Your task to perform on an android device: open app "Viber Messenger" (install if not already installed) and enter user name: "blameless@icloud.com" and password: "Yoknapatawpha" Image 0: 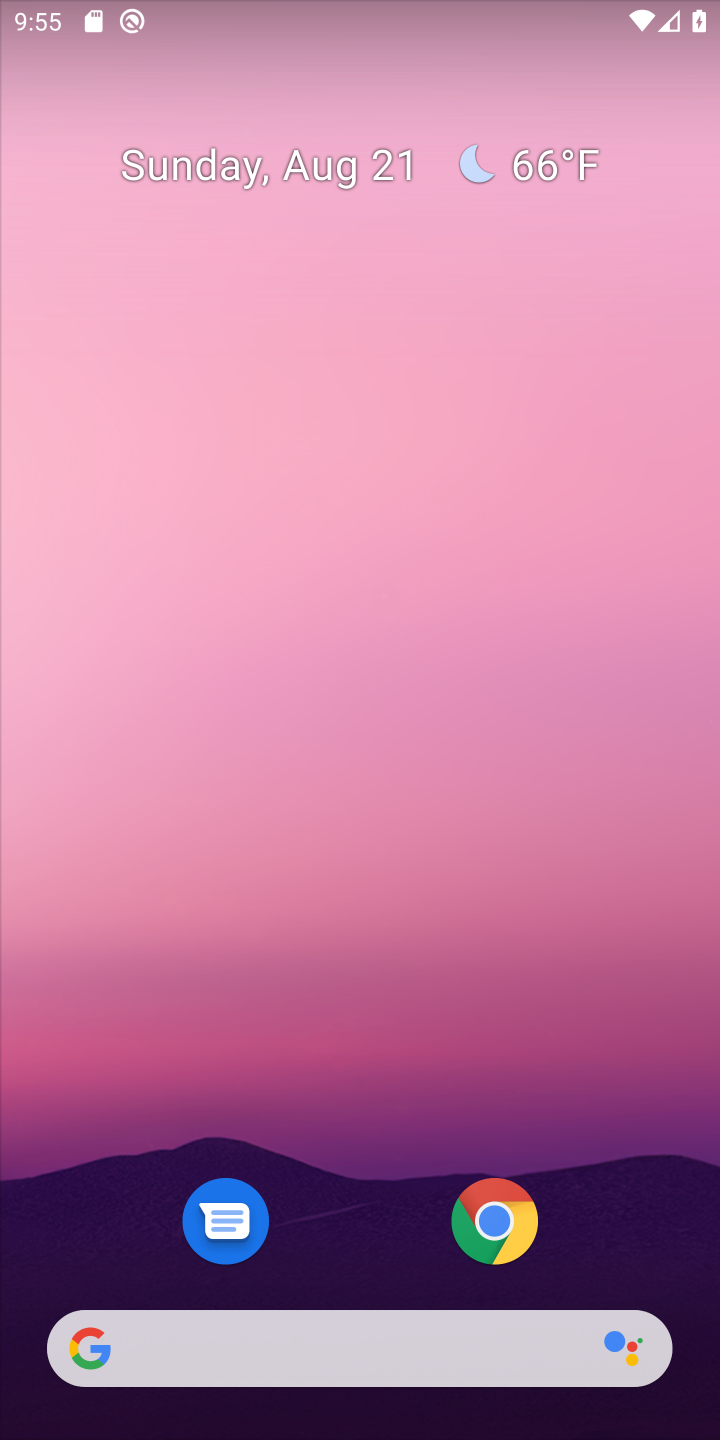
Step 0: drag from (361, 1042) to (361, 179)
Your task to perform on an android device: open app "Viber Messenger" (install if not already installed) and enter user name: "blameless@icloud.com" and password: "Yoknapatawpha" Image 1: 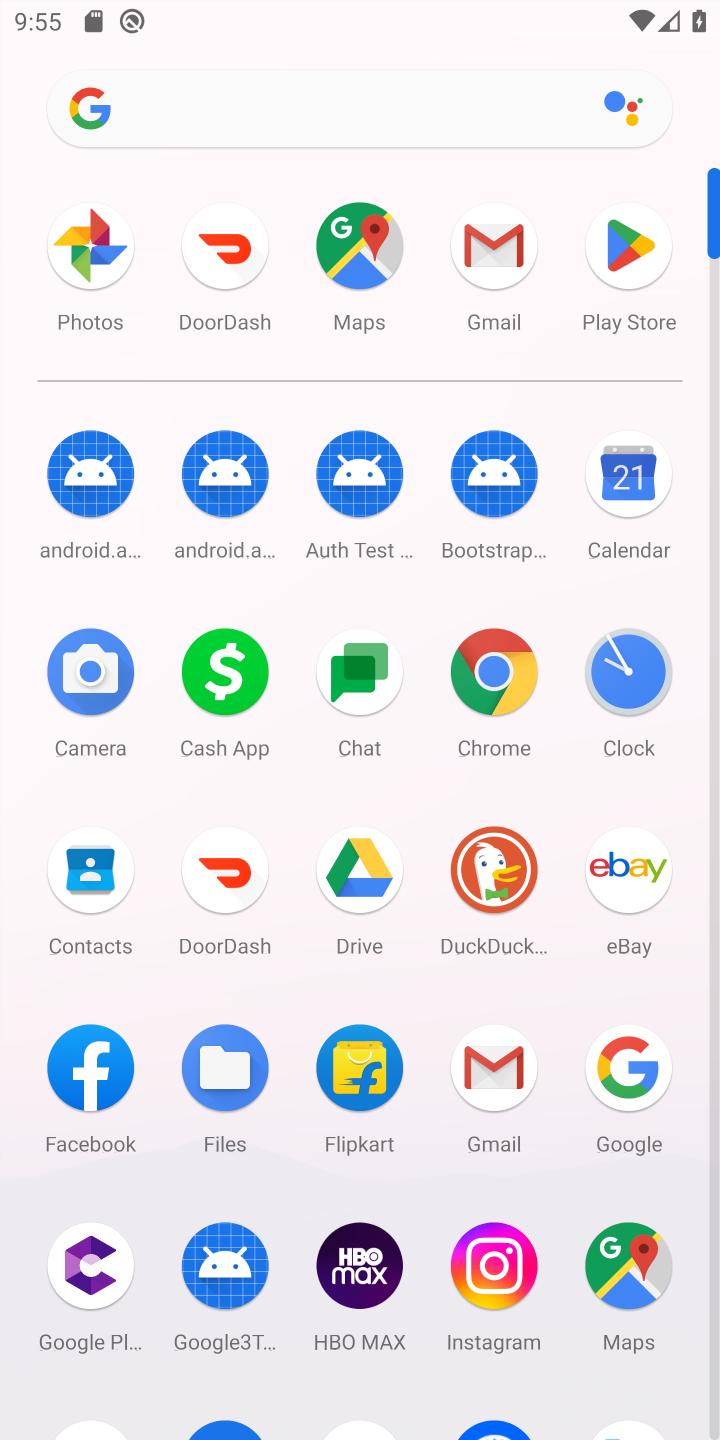
Step 1: click (609, 256)
Your task to perform on an android device: open app "Viber Messenger" (install if not already installed) and enter user name: "blameless@icloud.com" and password: "Yoknapatawpha" Image 2: 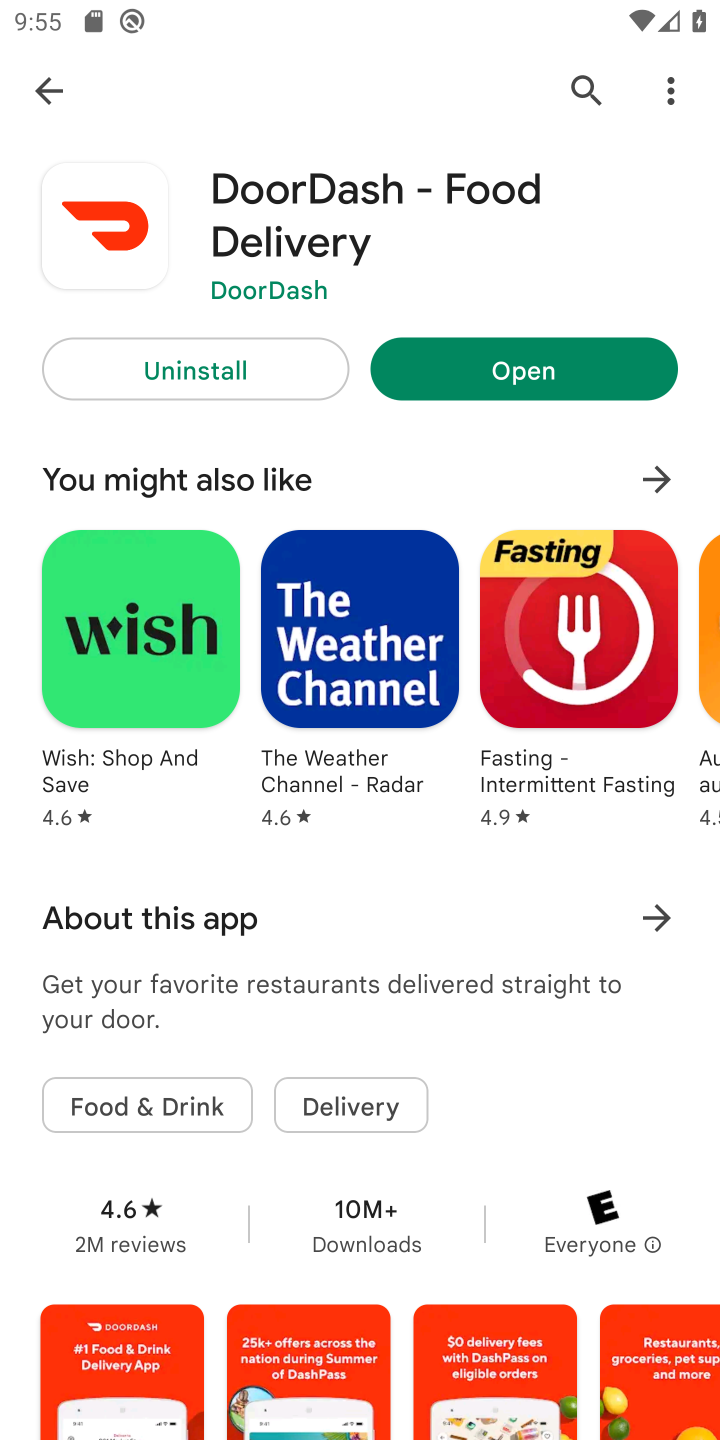
Step 2: click (580, 99)
Your task to perform on an android device: open app "Viber Messenger" (install if not already installed) and enter user name: "blameless@icloud.com" and password: "Yoknapatawpha" Image 3: 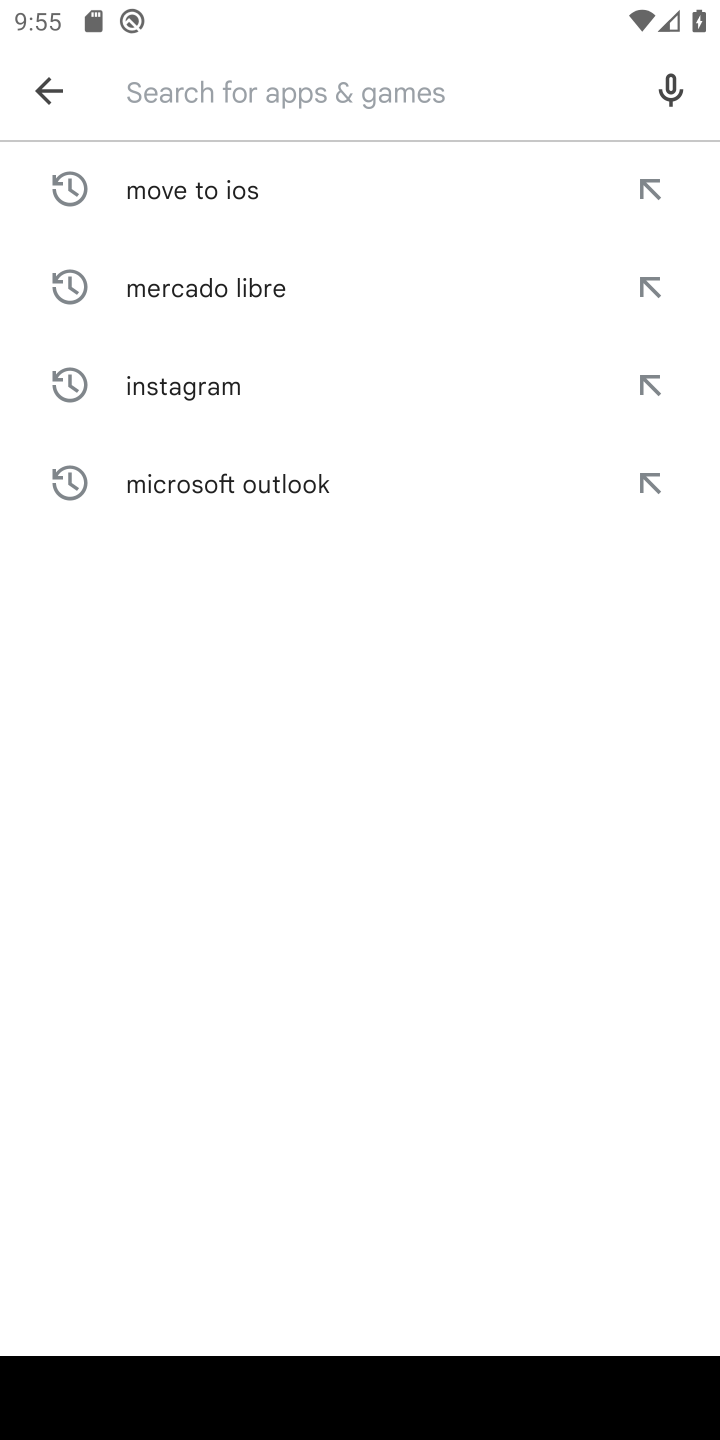
Step 3: type "Viber Messenger"
Your task to perform on an android device: open app "Viber Messenger" (install if not already installed) and enter user name: "blameless@icloud.com" and password: "Yoknapatawpha" Image 4: 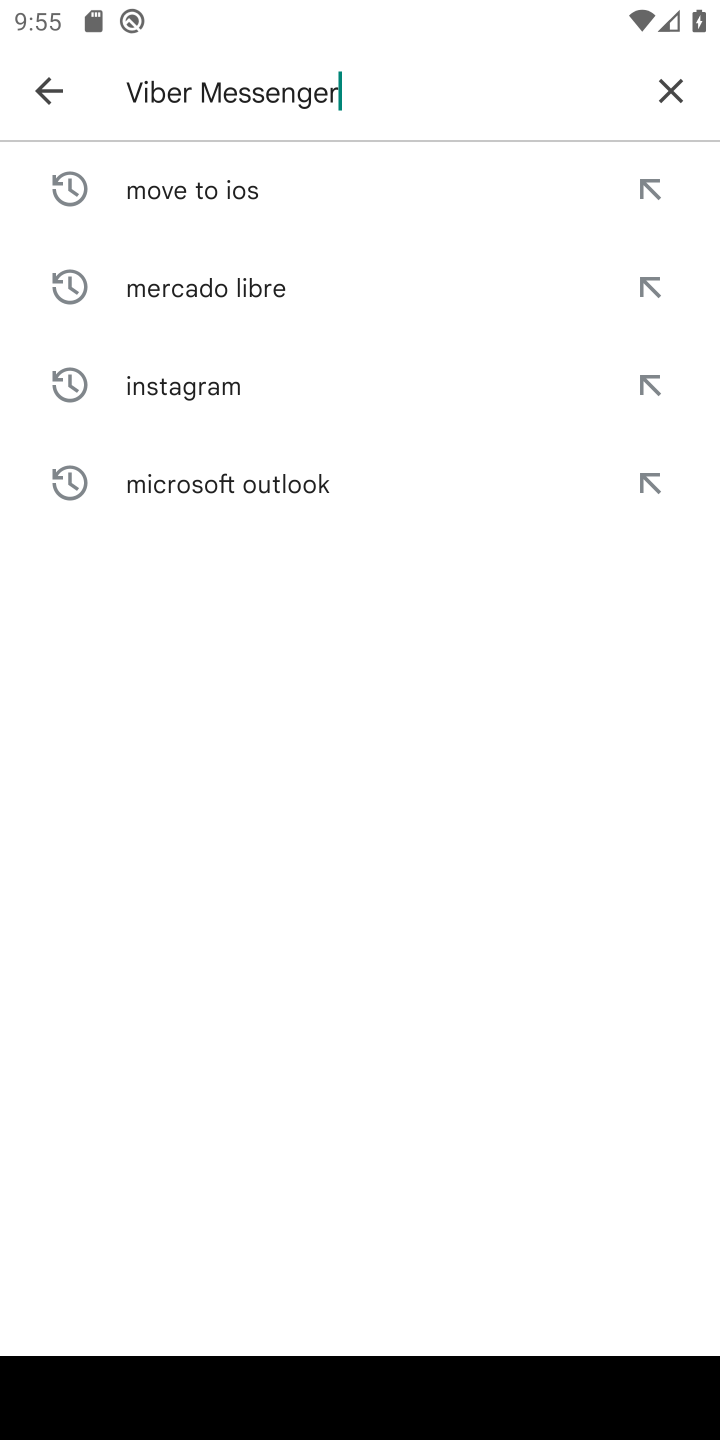
Step 4: type ""
Your task to perform on an android device: open app "Viber Messenger" (install if not already installed) and enter user name: "blameless@icloud.com" and password: "Yoknapatawpha" Image 5: 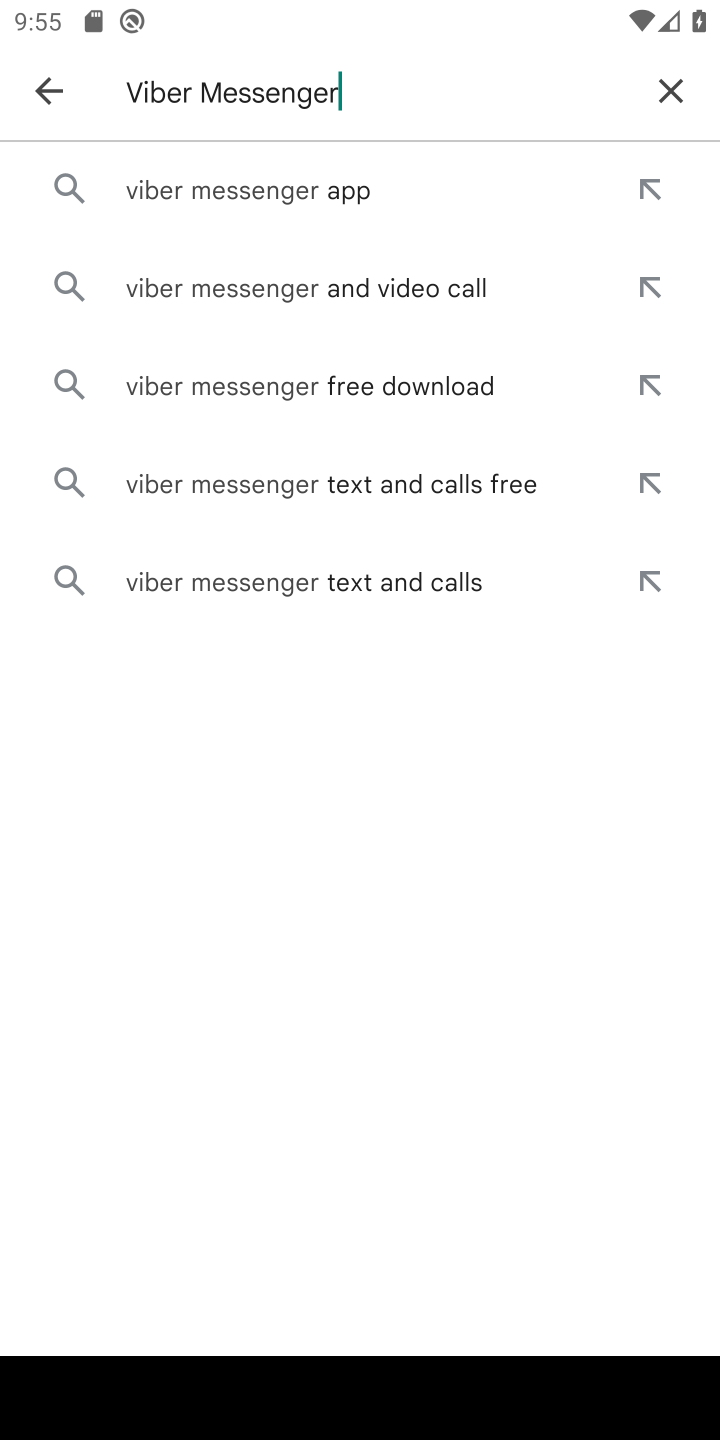
Step 5: click (299, 204)
Your task to perform on an android device: open app "Viber Messenger" (install if not already installed) and enter user name: "blameless@icloud.com" and password: "Yoknapatawpha" Image 6: 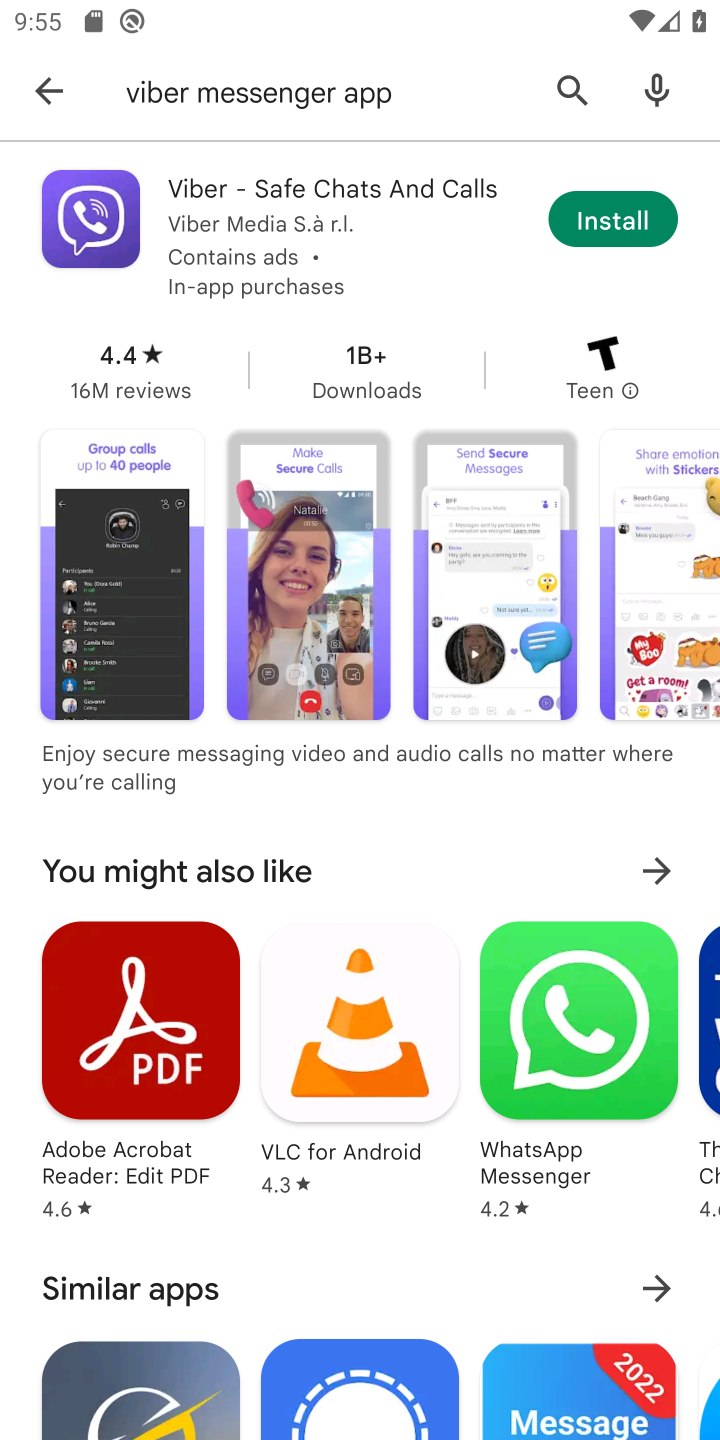
Step 6: click (622, 234)
Your task to perform on an android device: open app "Viber Messenger" (install if not already installed) and enter user name: "blameless@icloud.com" and password: "Yoknapatawpha" Image 7: 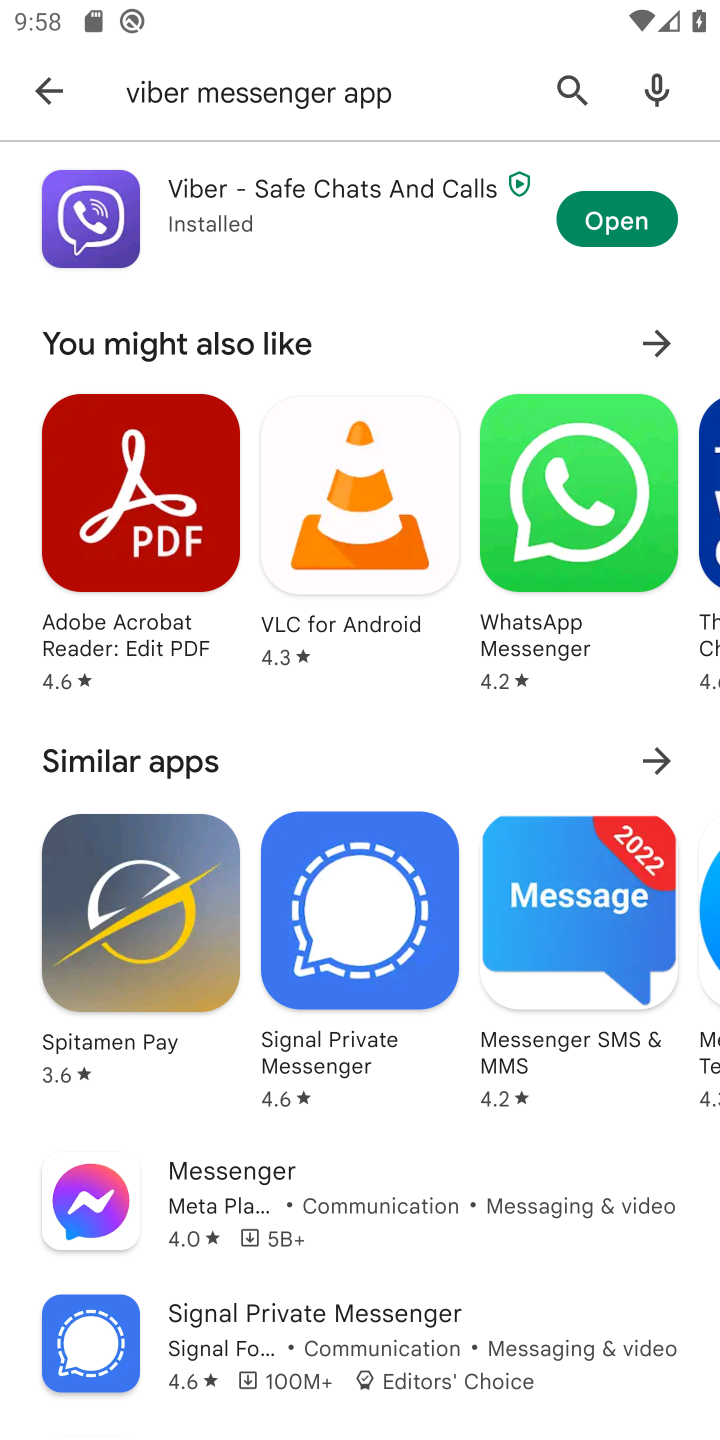
Step 7: click (648, 238)
Your task to perform on an android device: open app "Viber Messenger" (install if not already installed) and enter user name: "blameless@icloud.com" and password: "Yoknapatawpha" Image 8: 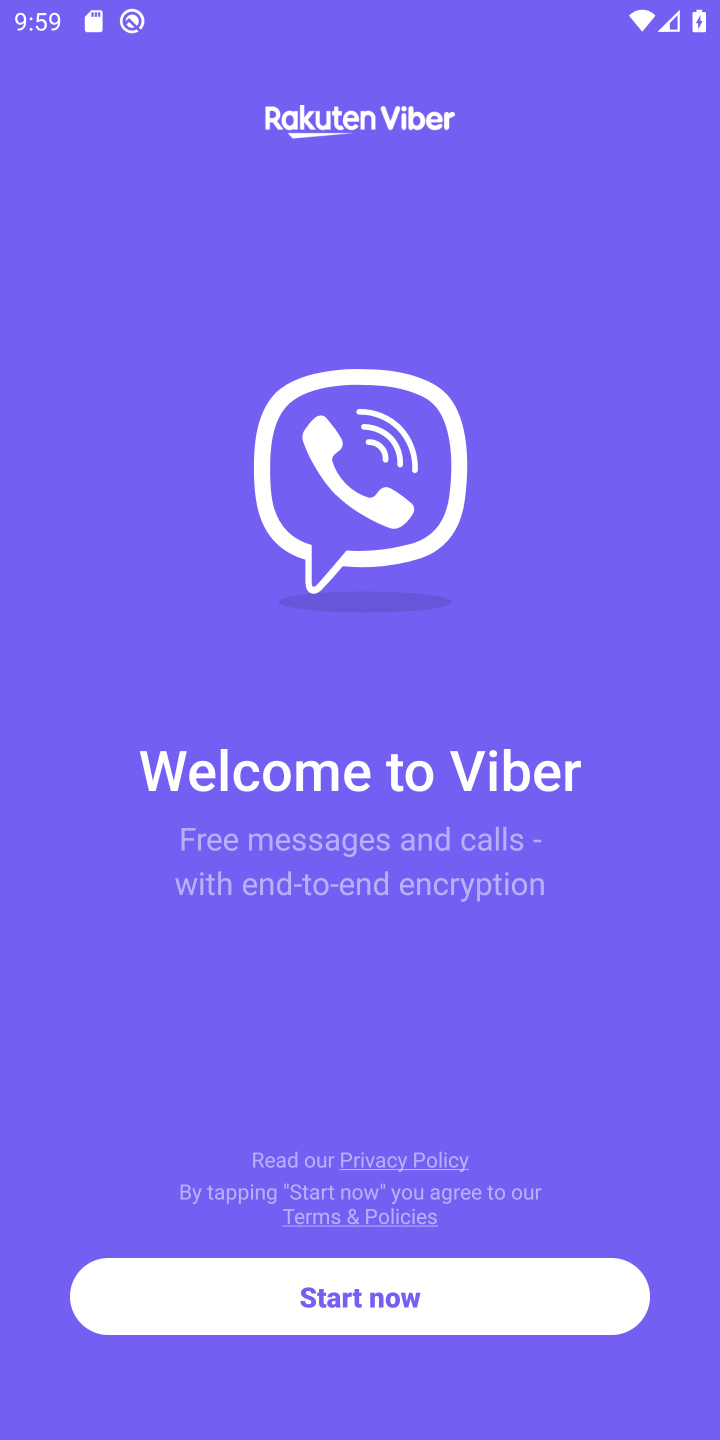
Step 8: task complete